Your task to perform on an android device: Go to Google maps Image 0: 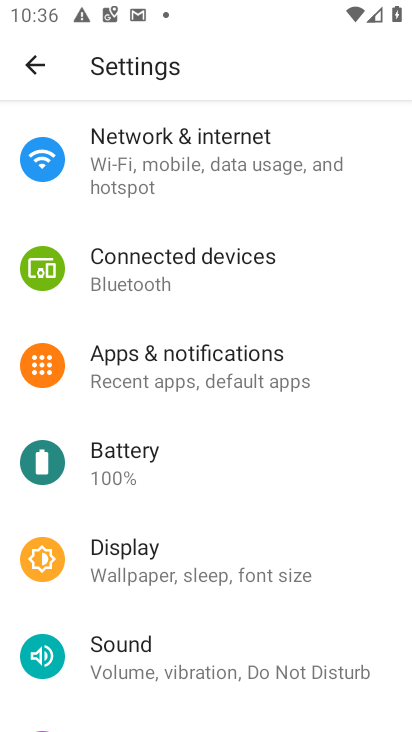
Step 0: press home button
Your task to perform on an android device: Go to Google maps Image 1: 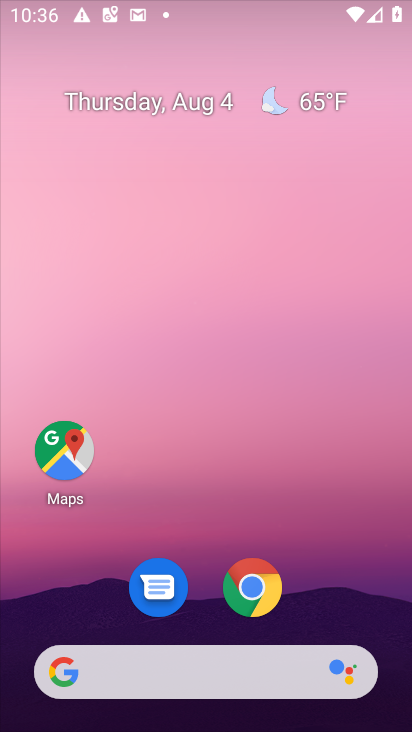
Step 1: drag from (212, 676) to (334, 155)
Your task to perform on an android device: Go to Google maps Image 2: 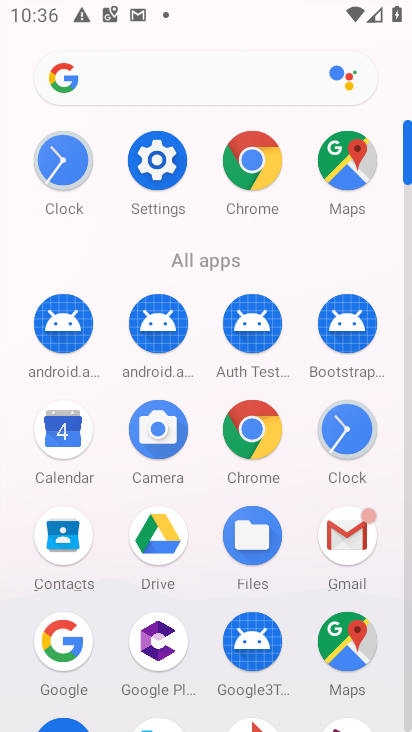
Step 2: click (337, 639)
Your task to perform on an android device: Go to Google maps Image 3: 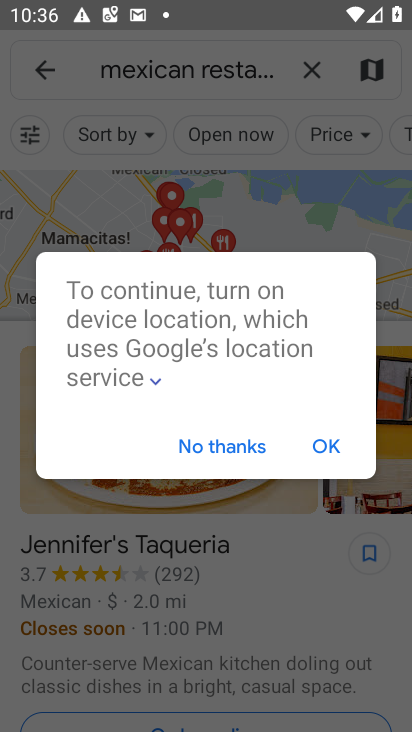
Step 3: click (347, 444)
Your task to perform on an android device: Go to Google maps Image 4: 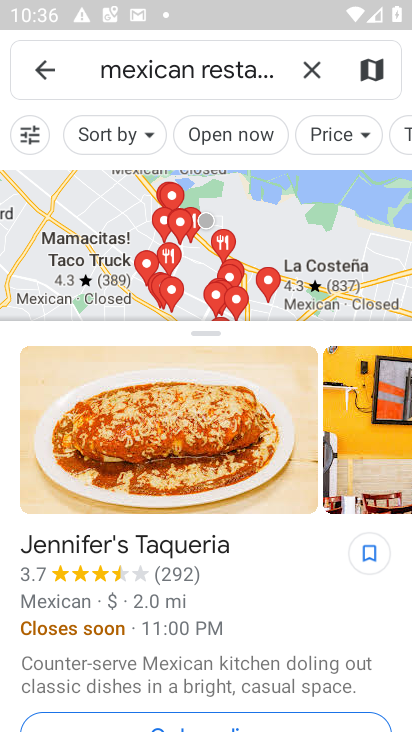
Step 4: click (318, 56)
Your task to perform on an android device: Go to Google maps Image 5: 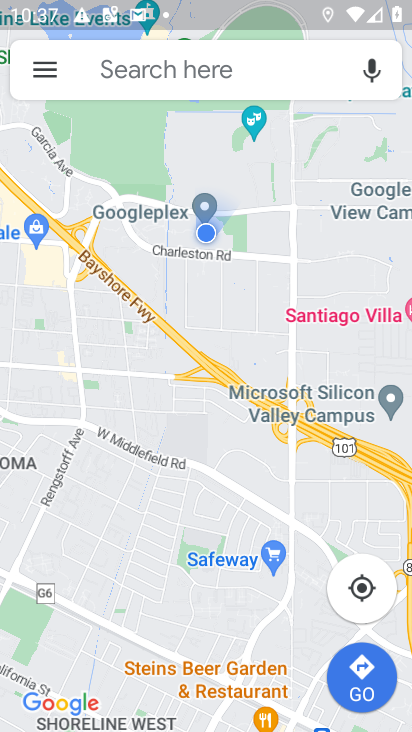
Step 5: task complete